Your task to perform on an android device: Open CNN.com Image 0: 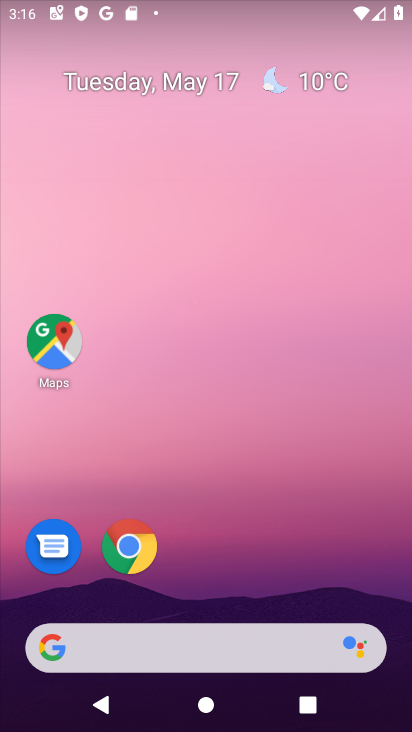
Step 0: click (142, 539)
Your task to perform on an android device: Open CNN.com Image 1: 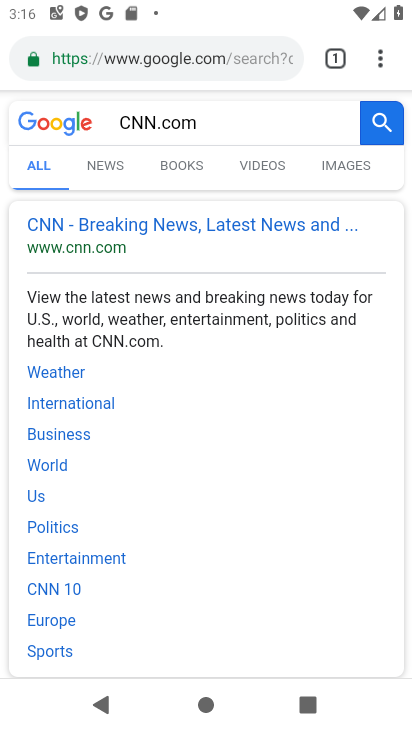
Step 1: click (67, 248)
Your task to perform on an android device: Open CNN.com Image 2: 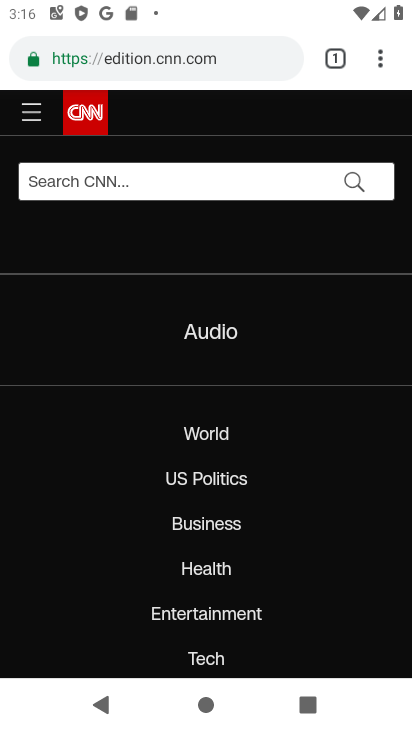
Step 2: task complete